Your task to perform on an android device: Go to location settings Image 0: 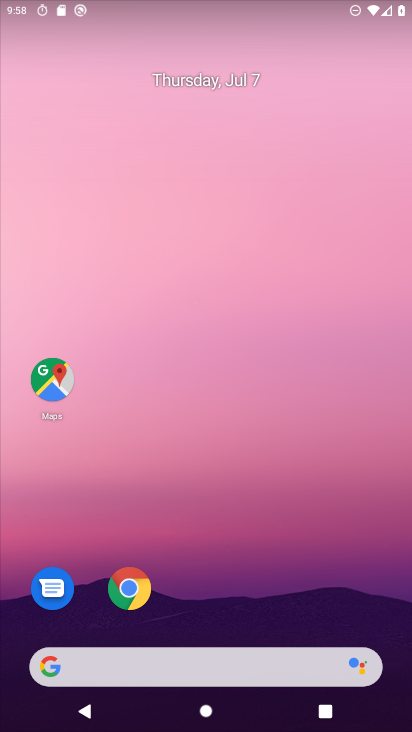
Step 0: drag from (246, 627) to (233, 102)
Your task to perform on an android device: Go to location settings Image 1: 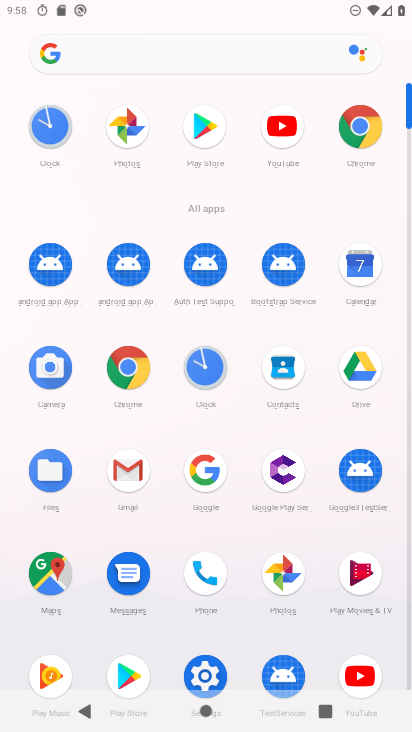
Step 1: click (203, 663)
Your task to perform on an android device: Go to location settings Image 2: 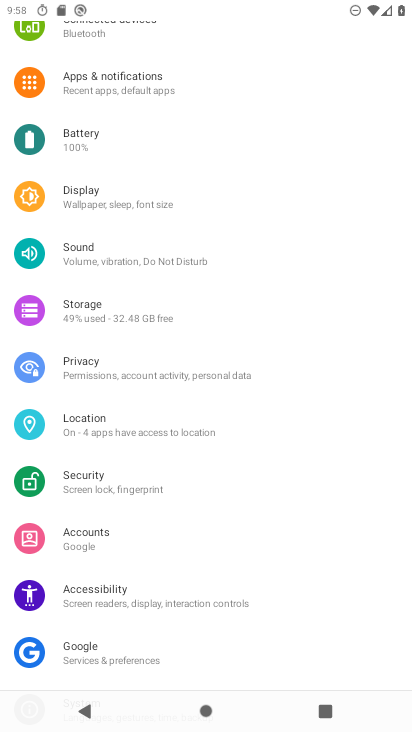
Step 2: click (55, 428)
Your task to perform on an android device: Go to location settings Image 3: 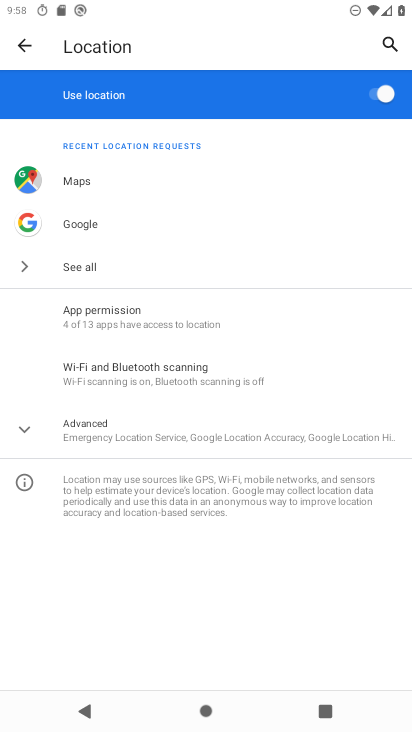
Step 3: task complete